Your task to perform on an android device: Go to Reddit.com Image 0: 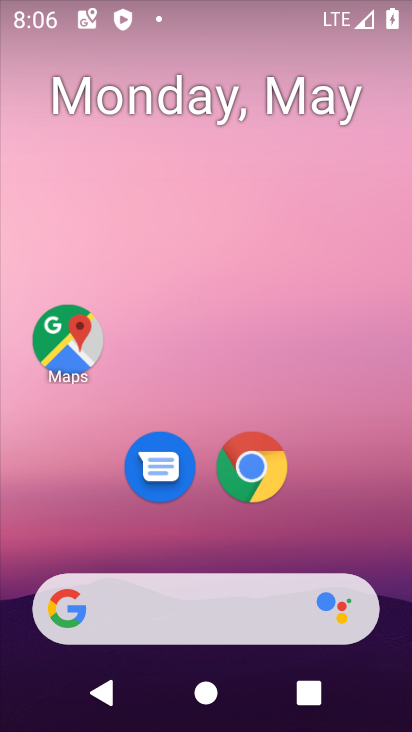
Step 0: click (262, 469)
Your task to perform on an android device: Go to Reddit.com Image 1: 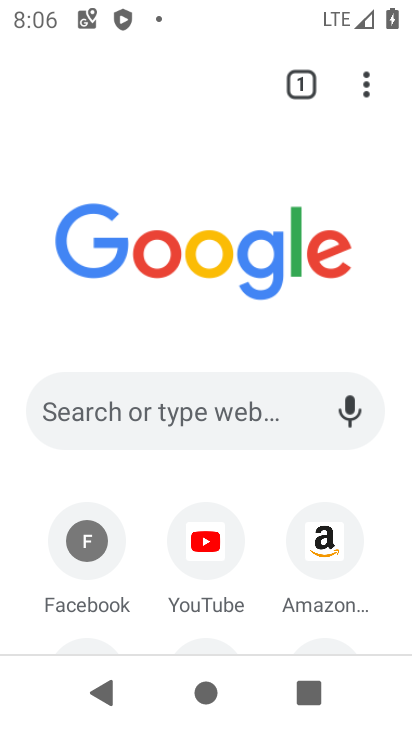
Step 1: click (215, 412)
Your task to perform on an android device: Go to Reddit.com Image 2: 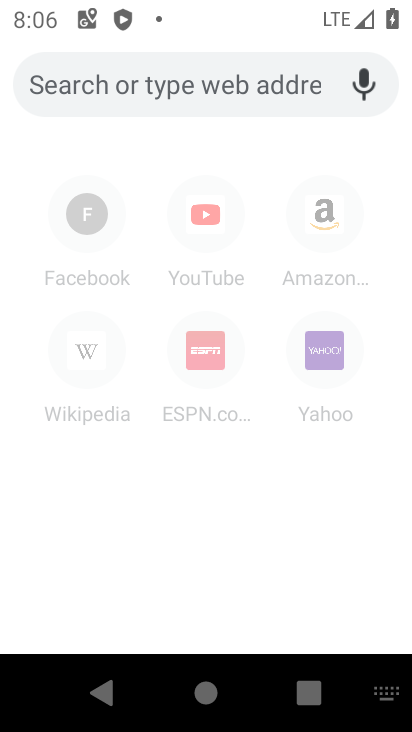
Step 2: type "Reddit.com"
Your task to perform on an android device: Go to Reddit.com Image 3: 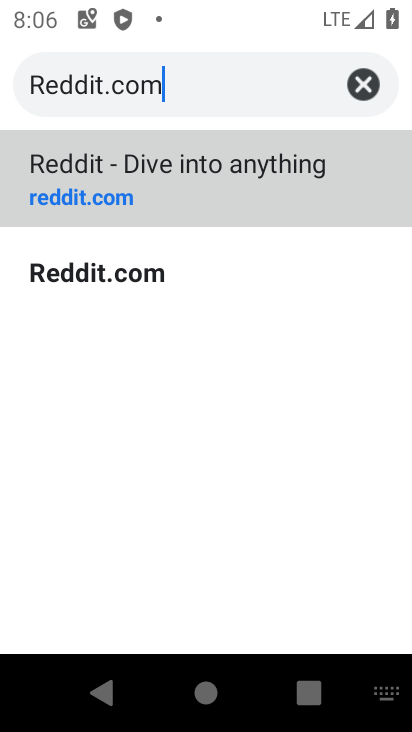
Step 3: click (216, 191)
Your task to perform on an android device: Go to Reddit.com Image 4: 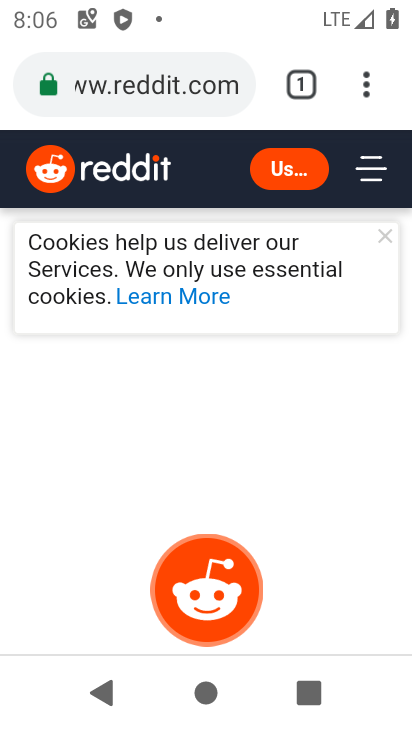
Step 4: task complete